Your task to perform on an android device: Open Maps and search for coffee Image 0: 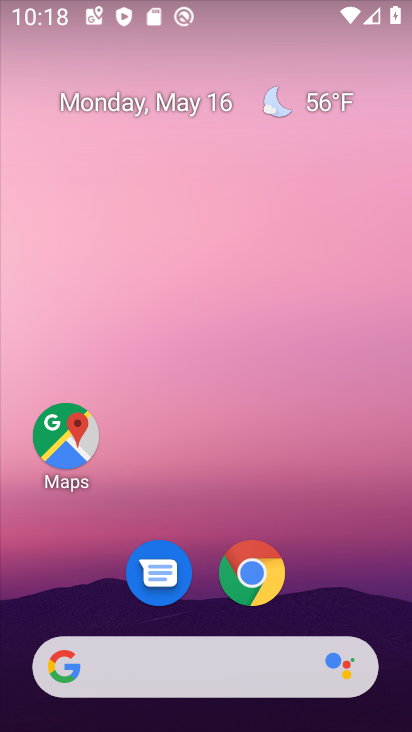
Step 0: click (69, 429)
Your task to perform on an android device: Open Maps and search for coffee Image 1: 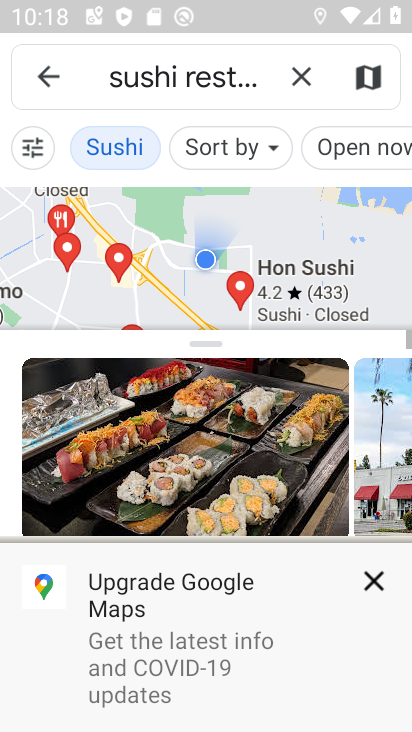
Step 1: click (303, 76)
Your task to perform on an android device: Open Maps and search for coffee Image 2: 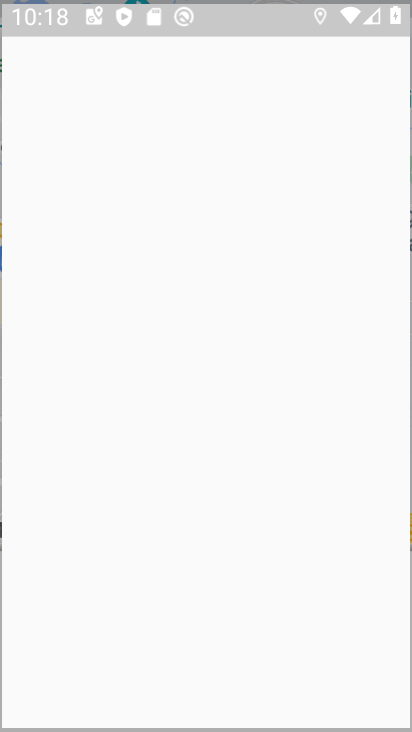
Step 2: click (230, 82)
Your task to perform on an android device: Open Maps and search for coffee Image 3: 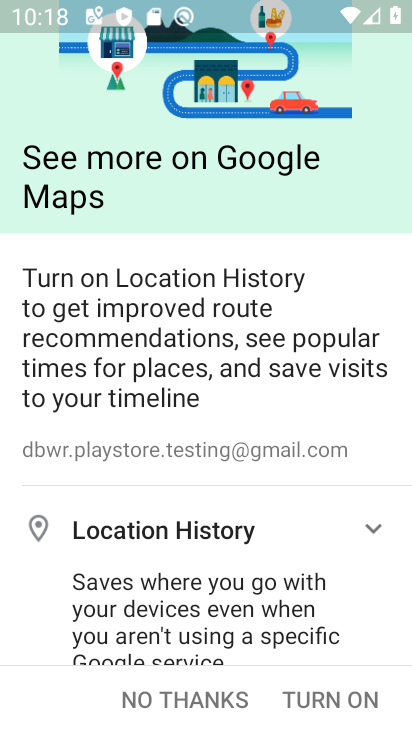
Step 3: click (187, 712)
Your task to perform on an android device: Open Maps and search for coffee Image 4: 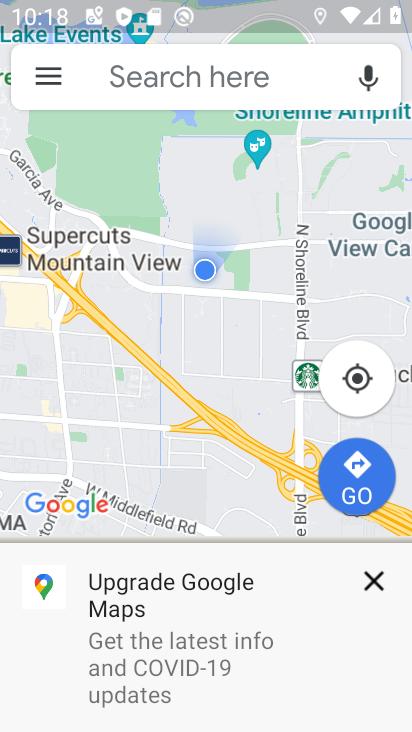
Step 4: click (253, 85)
Your task to perform on an android device: Open Maps and search for coffee Image 5: 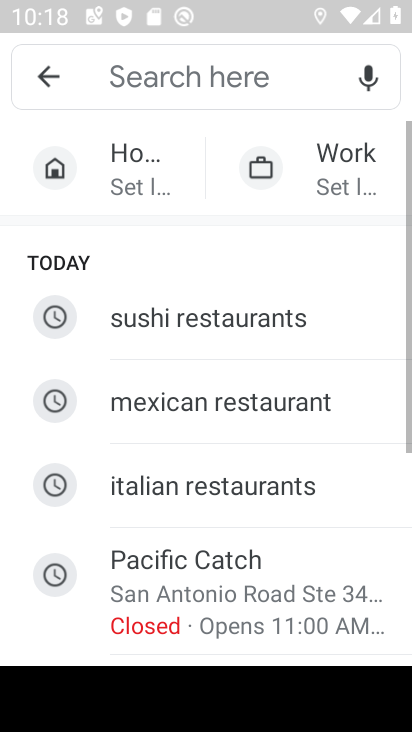
Step 5: drag from (245, 527) to (211, 72)
Your task to perform on an android device: Open Maps and search for coffee Image 6: 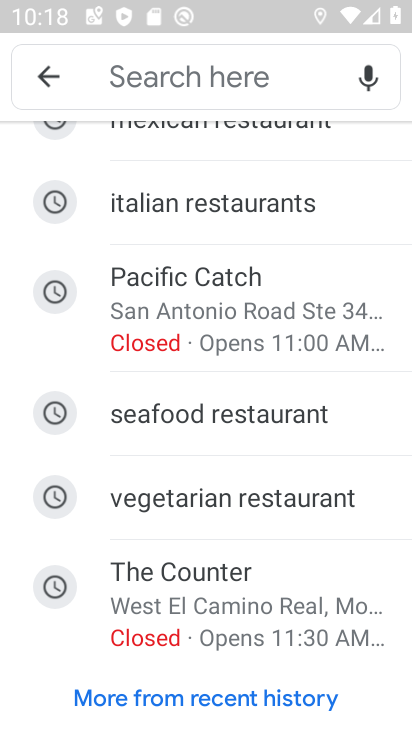
Step 6: click (181, 70)
Your task to perform on an android device: Open Maps and search for coffee Image 7: 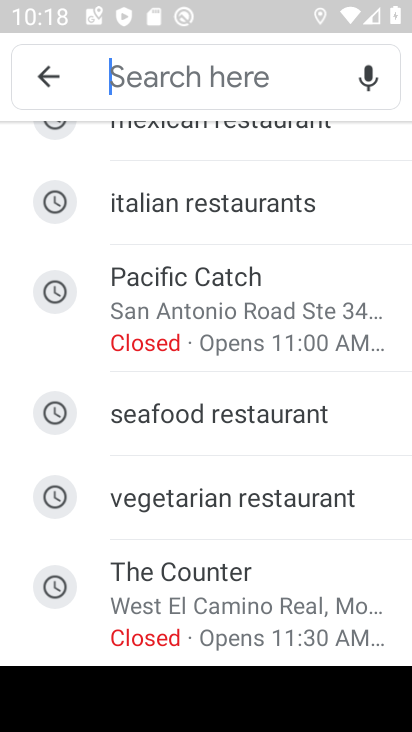
Step 7: type "coffee"
Your task to perform on an android device: Open Maps and search for coffee Image 8: 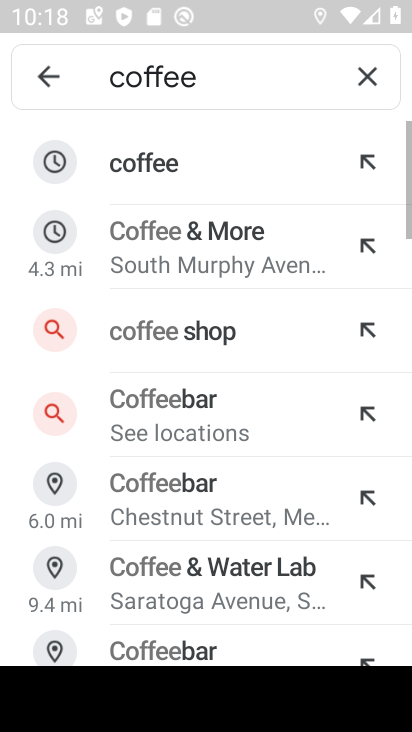
Step 8: click (237, 160)
Your task to perform on an android device: Open Maps and search for coffee Image 9: 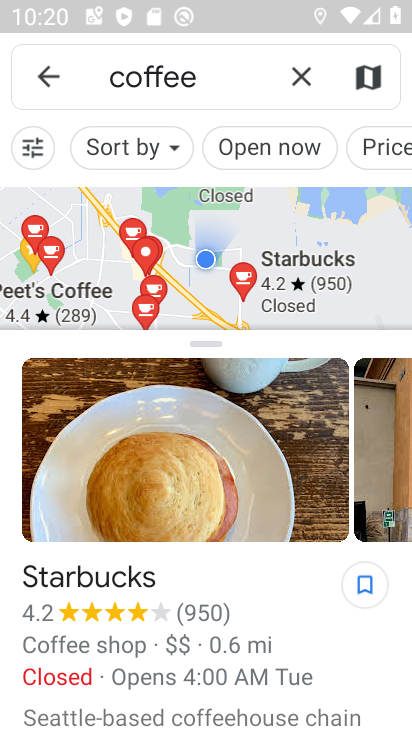
Step 9: task complete